Your task to perform on an android device: turn off translation in the chrome app Image 0: 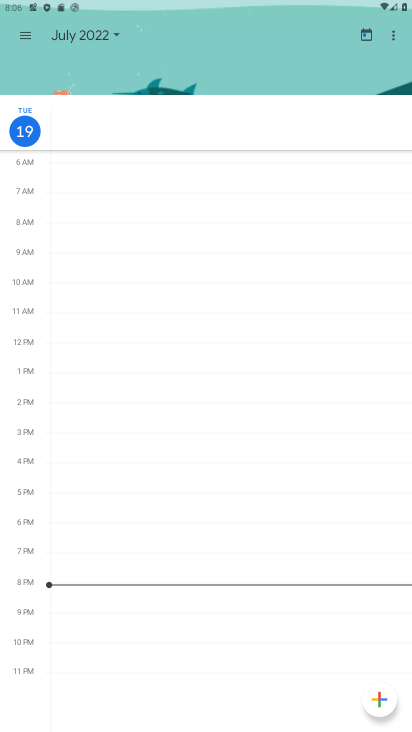
Step 0: press home button
Your task to perform on an android device: turn off translation in the chrome app Image 1: 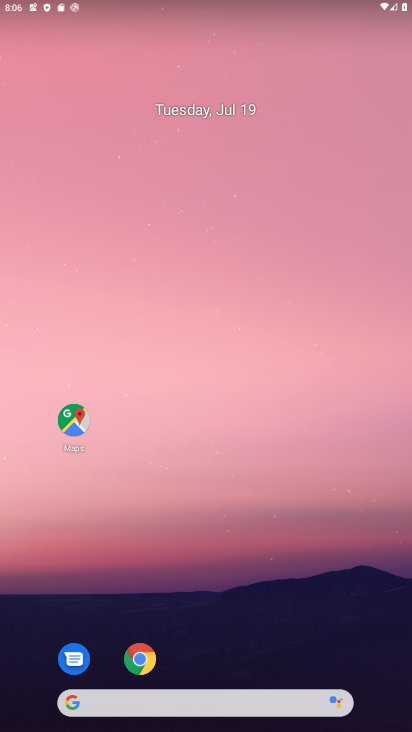
Step 1: click (157, 653)
Your task to perform on an android device: turn off translation in the chrome app Image 2: 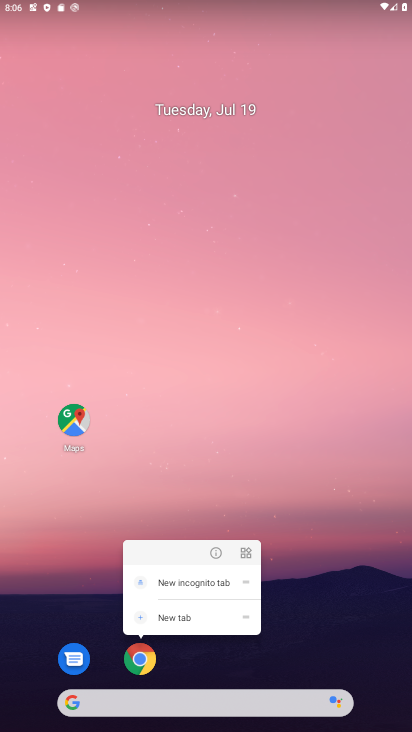
Step 2: click (141, 665)
Your task to perform on an android device: turn off translation in the chrome app Image 3: 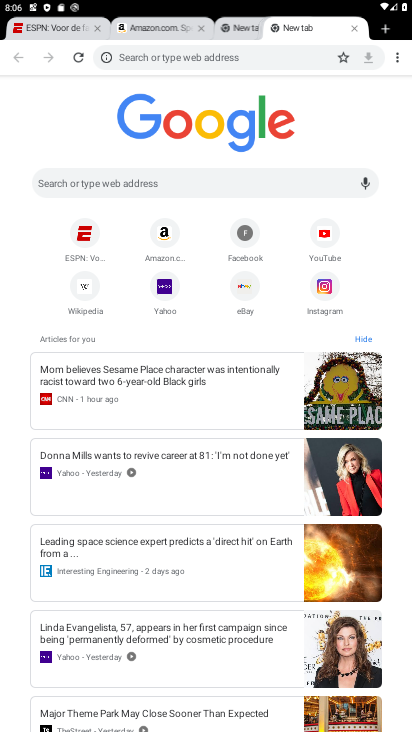
Step 3: click (400, 57)
Your task to perform on an android device: turn off translation in the chrome app Image 4: 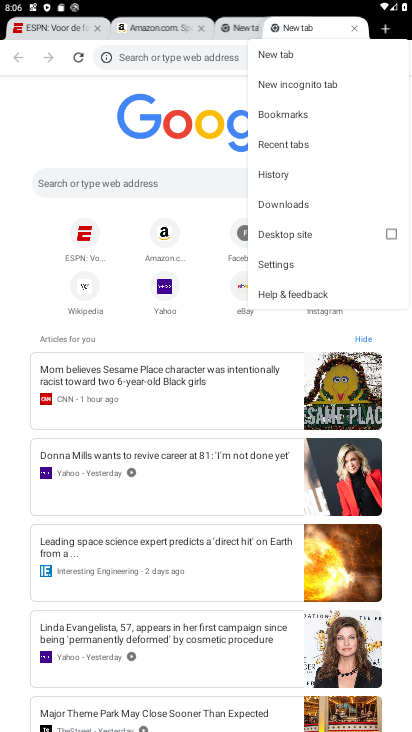
Step 4: click (286, 258)
Your task to perform on an android device: turn off translation in the chrome app Image 5: 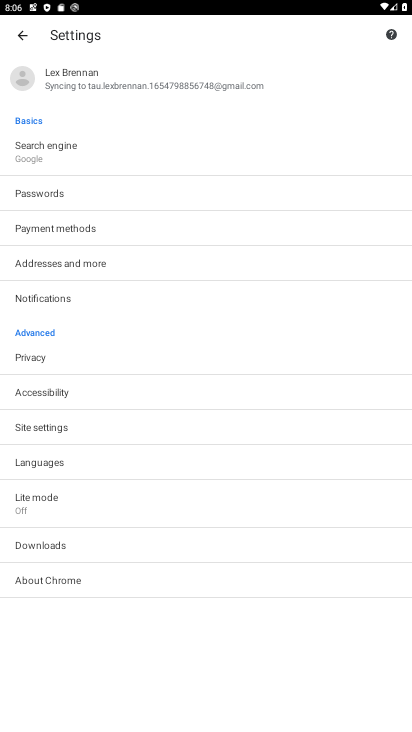
Step 5: click (51, 458)
Your task to perform on an android device: turn off translation in the chrome app Image 6: 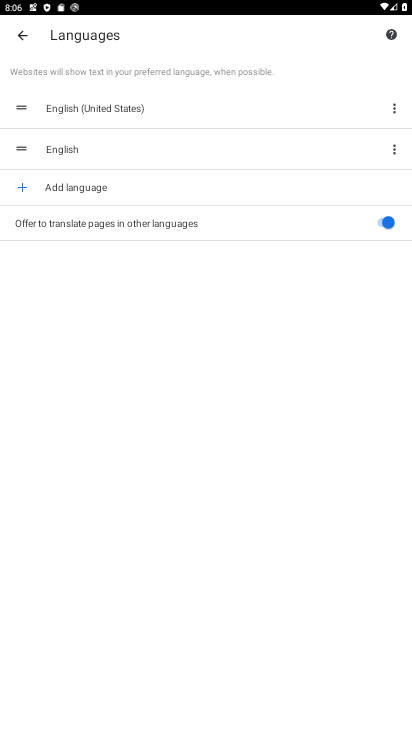
Step 6: click (385, 219)
Your task to perform on an android device: turn off translation in the chrome app Image 7: 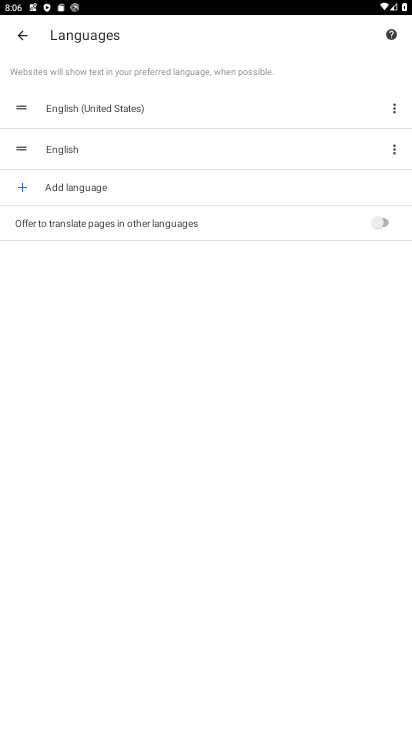
Step 7: task complete